Your task to perform on an android device: move a message to another label in the gmail app Image 0: 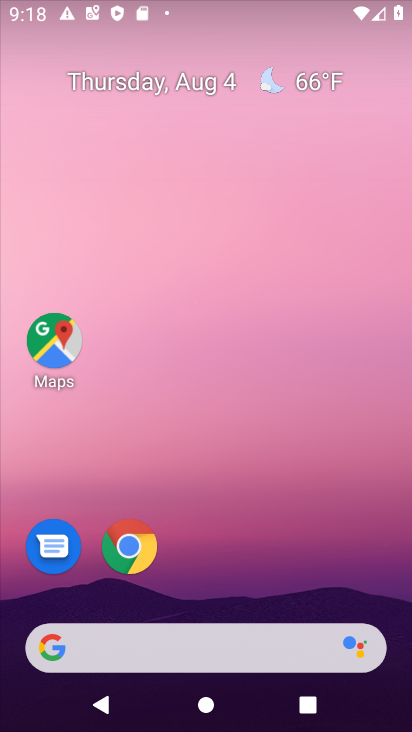
Step 0: press home button
Your task to perform on an android device: move a message to another label in the gmail app Image 1: 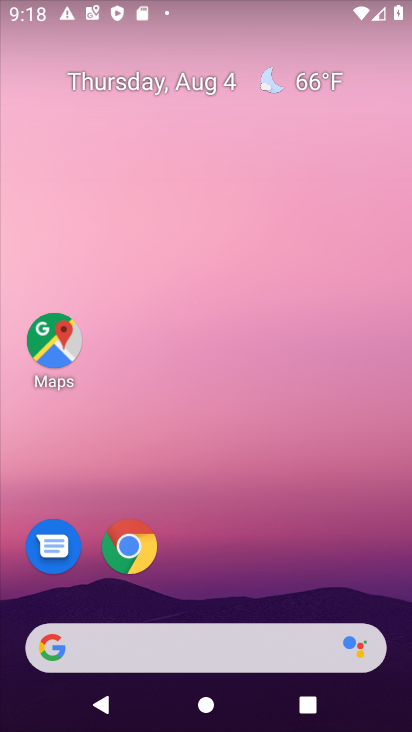
Step 1: drag from (258, 557) to (325, 114)
Your task to perform on an android device: move a message to another label in the gmail app Image 2: 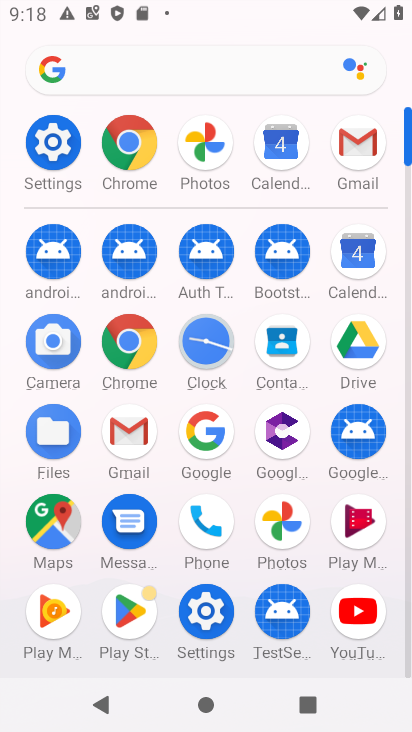
Step 2: click (370, 152)
Your task to perform on an android device: move a message to another label in the gmail app Image 3: 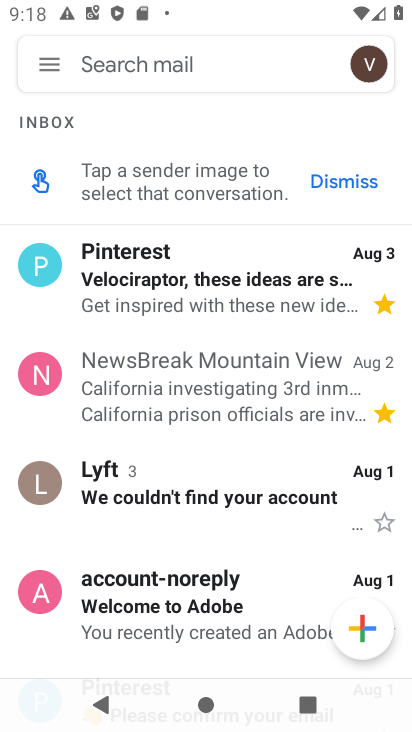
Step 3: click (197, 293)
Your task to perform on an android device: move a message to another label in the gmail app Image 4: 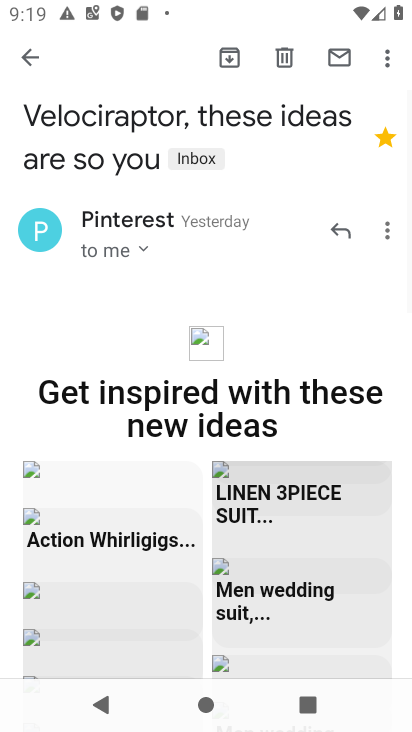
Step 4: click (384, 61)
Your task to perform on an android device: move a message to another label in the gmail app Image 5: 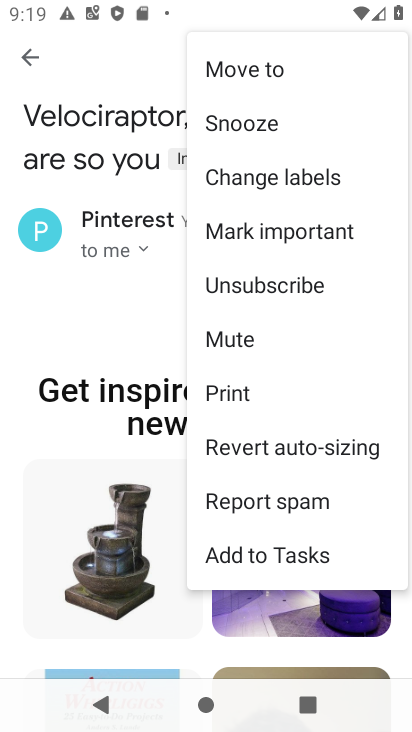
Step 5: click (273, 180)
Your task to perform on an android device: move a message to another label in the gmail app Image 6: 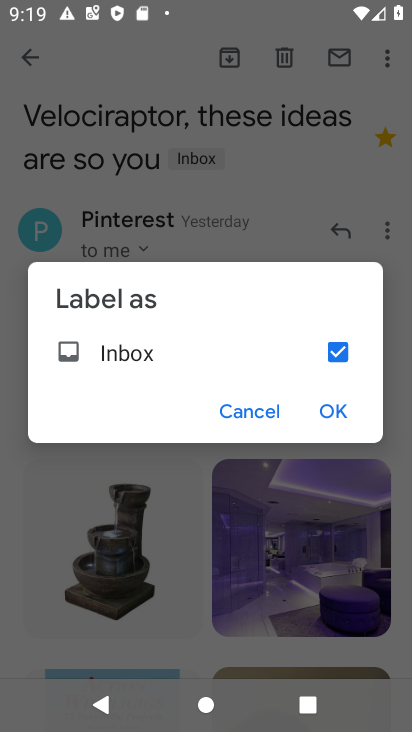
Step 6: click (323, 418)
Your task to perform on an android device: move a message to another label in the gmail app Image 7: 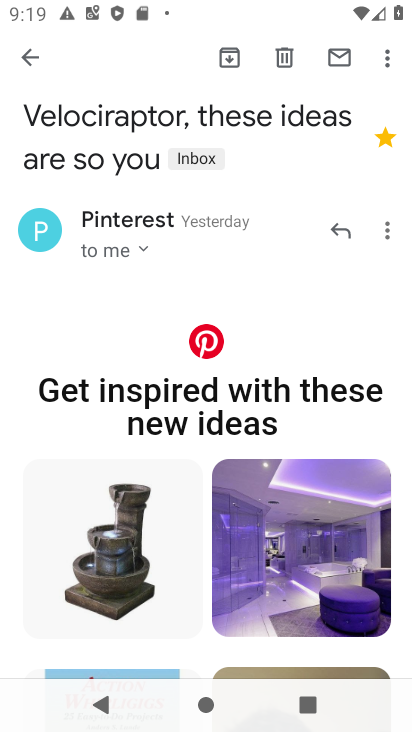
Step 7: task complete